Your task to perform on an android device: open app "Grab" (install if not already installed) Image 0: 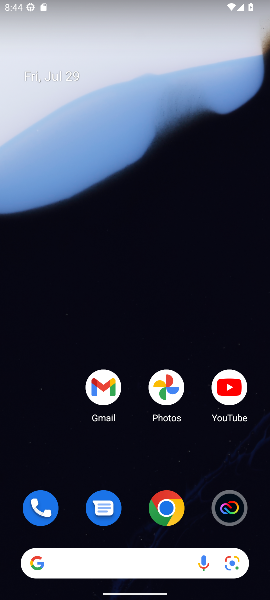
Step 0: drag from (52, 444) to (229, 35)
Your task to perform on an android device: open app "Grab" (install if not already installed) Image 1: 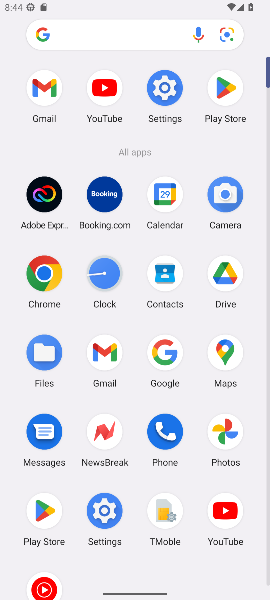
Step 1: click (224, 83)
Your task to perform on an android device: open app "Grab" (install if not already installed) Image 2: 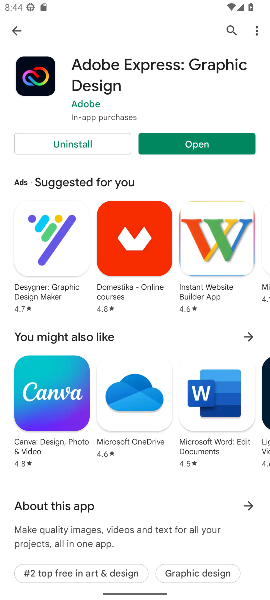
Step 2: click (231, 29)
Your task to perform on an android device: open app "Grab" (install if not already installed) Image 3: 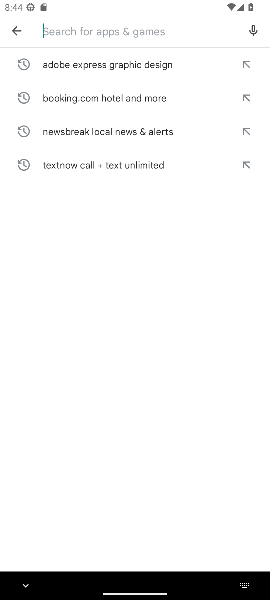
Step 3: type "grab"
Your task to perform on an android device: open app "Grab" (install if not already installed) Image 4: 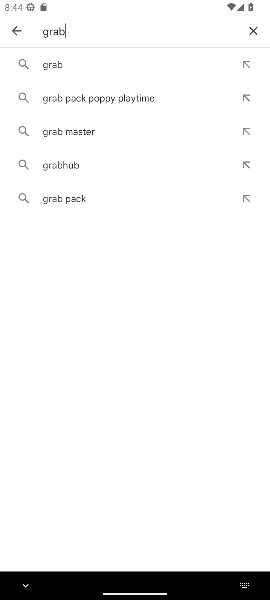
Step 4: click (172, 62)
Your task to perform on an android device: open app "Grab" (install if not already installed) Image 5: 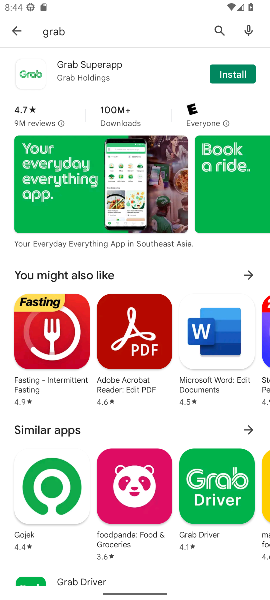
Step 5: click (129, 68)
Your task to perform on an android device: open app "Grab" (install if not already installed) Image 6: 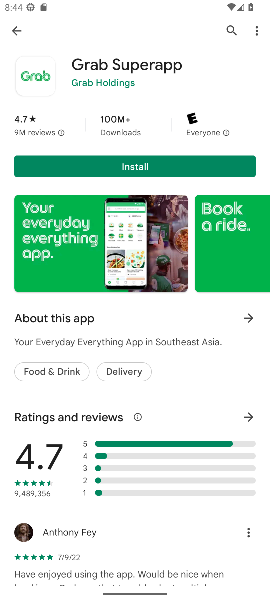
Step 6: click (142, 172)
Your task to perform on an android device: open app "Grab" (install if not already installed) Image 7: 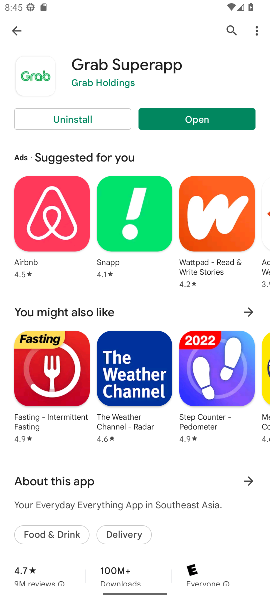
Step 7: click (219, 120)
Your task to perform on an android device: open app "Grab" (install if not already installed) Image 8: 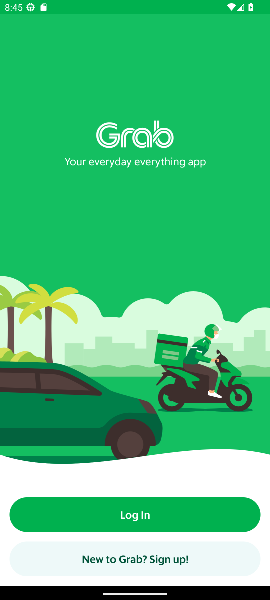
Step 8: task complete